Your task to perform on an android device: toggle notification dots Image 0: 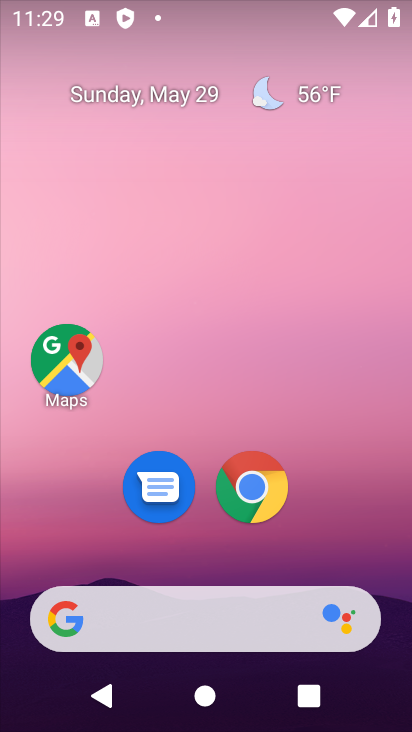
Step 0: drag from (218, 614) to (213, 225)
Your task to perform on an android device: toggle notification dots Image 1: 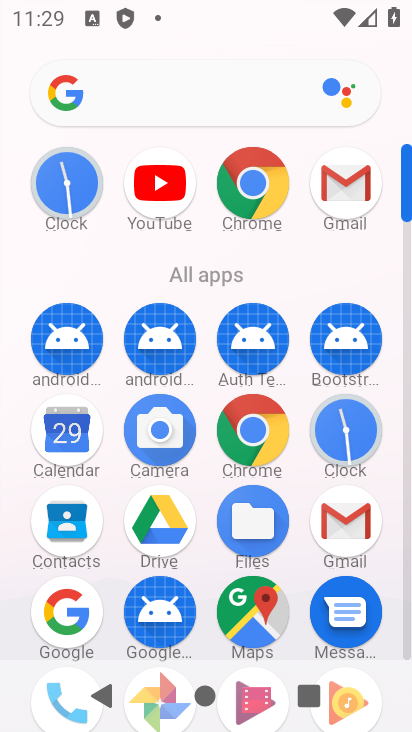
Step 1: drag from (211, 475) to (228, 187)
Your task to perform on an android device: toggle notification dots Image 2: 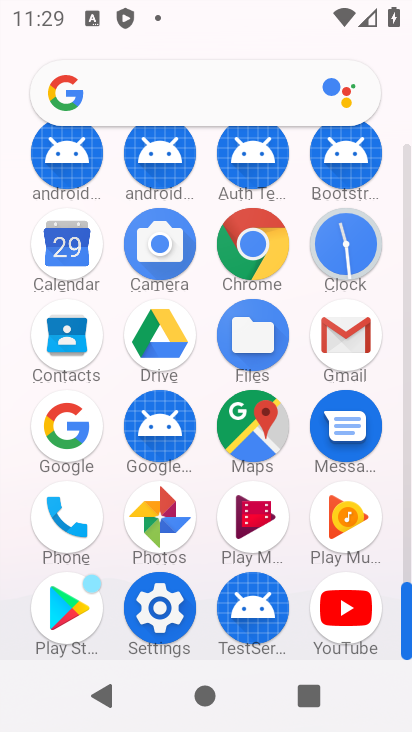
Step 2: click (172, 604)
Your task to perform on an android device: toggle notification dots Image 3: 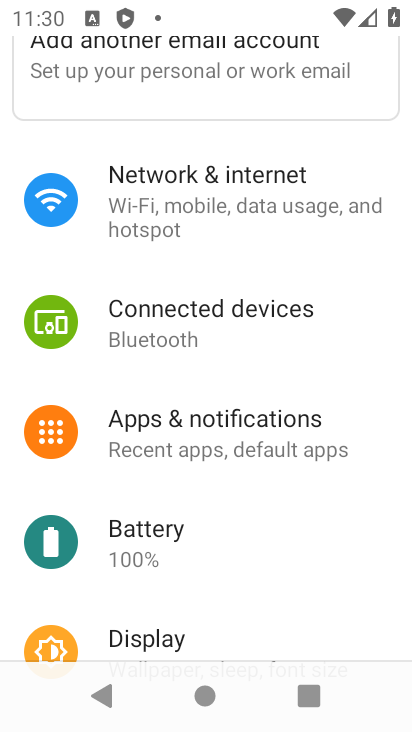
Step 3: click (159, 435)
Your task to perform on an android device: toggle notification dots Image 4: 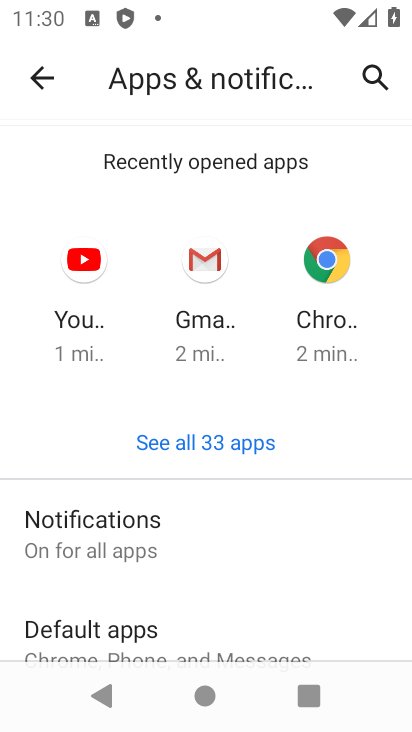
Step 4: drag from (162, 557) to (177, 209)
Your task to perform on an android device: toggle notification dots Image 5: 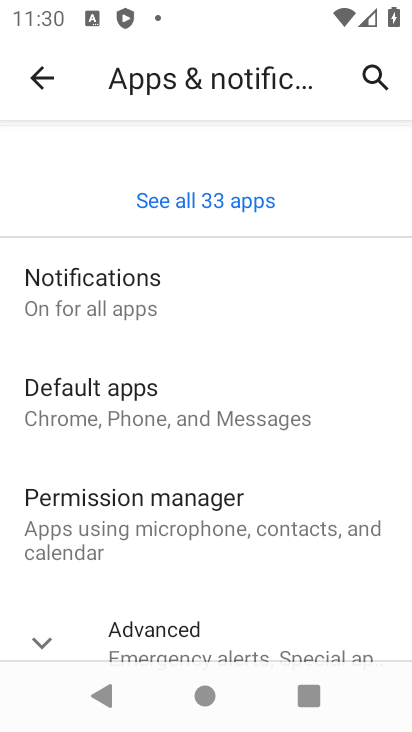
Step 5: click (218, 305)
Your task to perform on an android device: toggle notification dots Image 6: 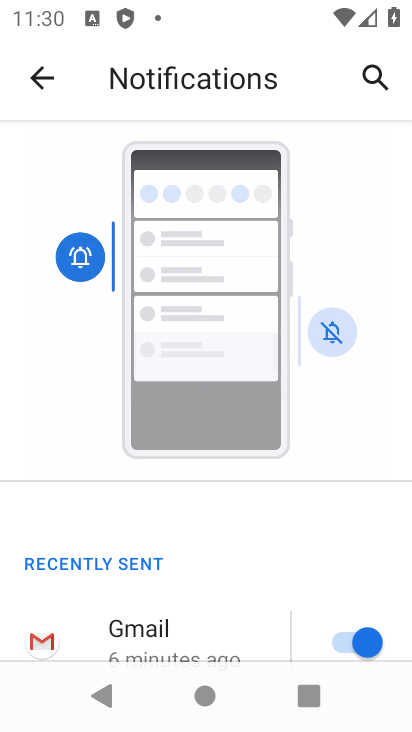
Step 6: drag from (181, 583) to (165, 265)
Your task to perform on an android device: toggle notification dots Image 7: 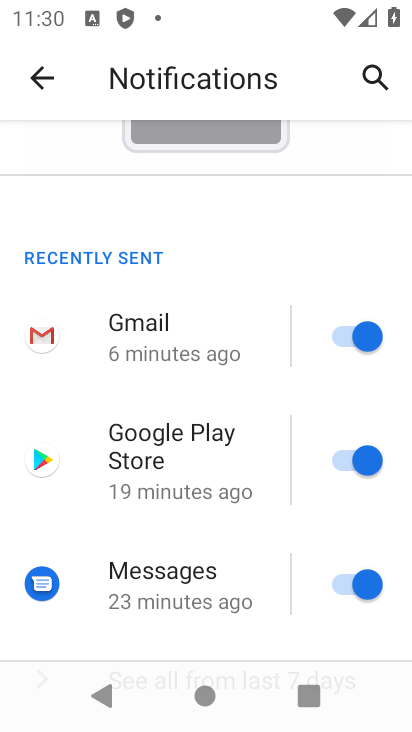
Step 7: drag from (146, 536) to (170, 218)
Your task to perform on an android device: toggle notification dots Image 8: 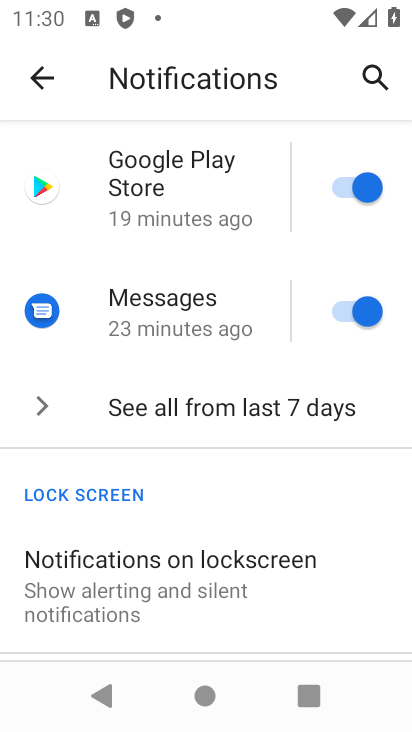
Step 8: drag from (168, 509) to (178, 261)
Your task to perform on an android device: toggle notification dots Image 9: 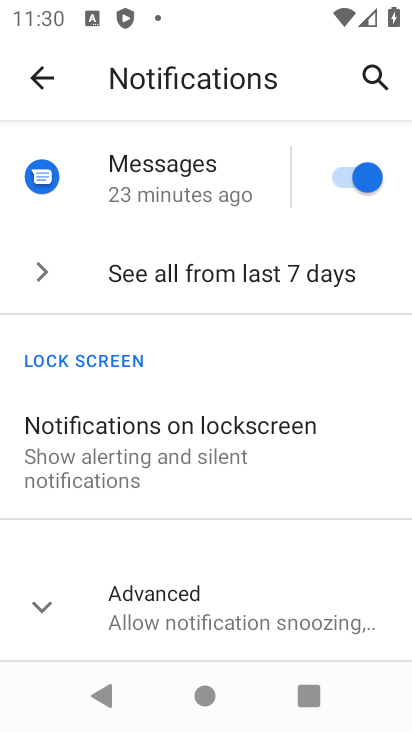
Step 9: click (179, 612)
Your task to perform on an android device: toggle notification dots Image 10: 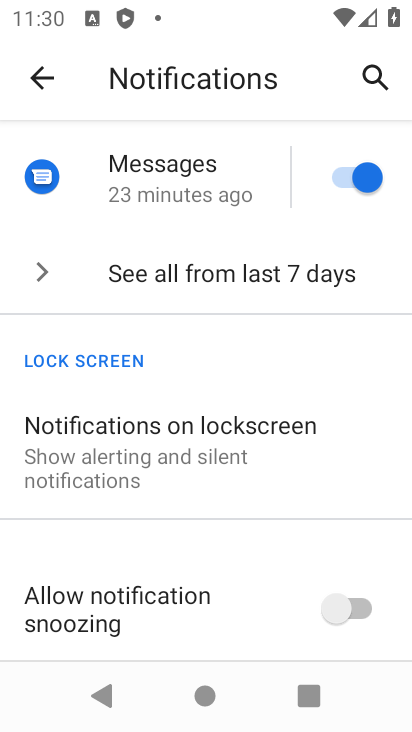
Step 10: drag from (179, 610) to (216, 248)
Your task to perform on an android device: toggle notification dots Image 11: 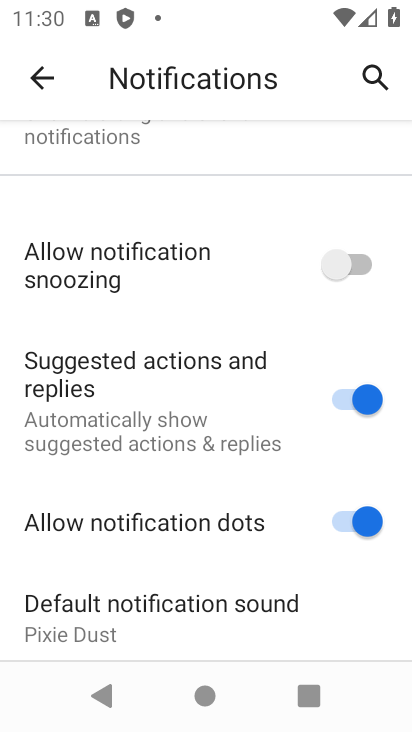
Step 11: click (338, 520)
Your task to perform on an android device: toggle notification dots Image 12: 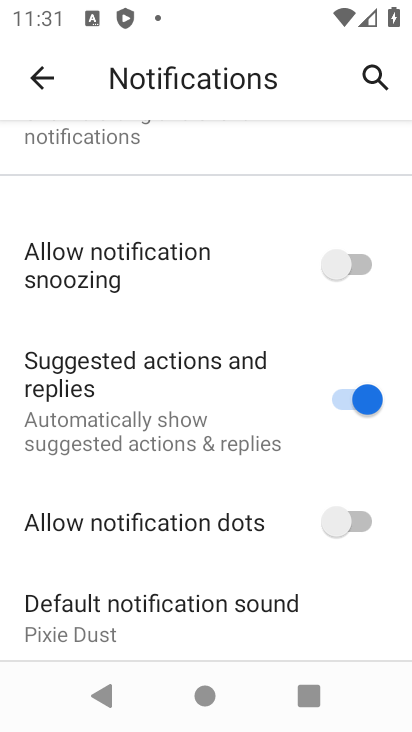
Step 12: task complete